Your task to perform on an android device: Open the phone app and click the voicemail tab. Image 0: 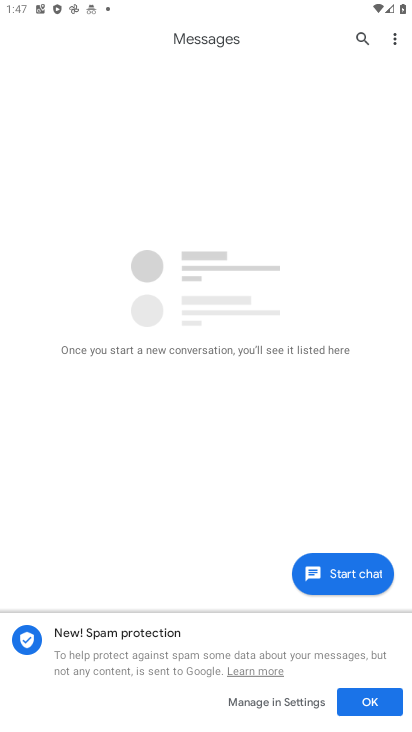
Step 0: press home button
Your task to perform on an android device: Open the phone app and click the voicemail tab. Image 1: 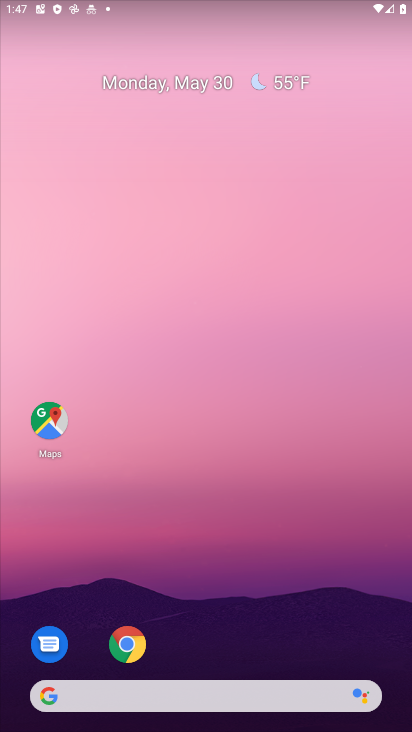
Step 1: drag from (360, 629) to (286, 267)
Your task to perform on an android device: Open the phone app and click the voicemail tab. Image 2: 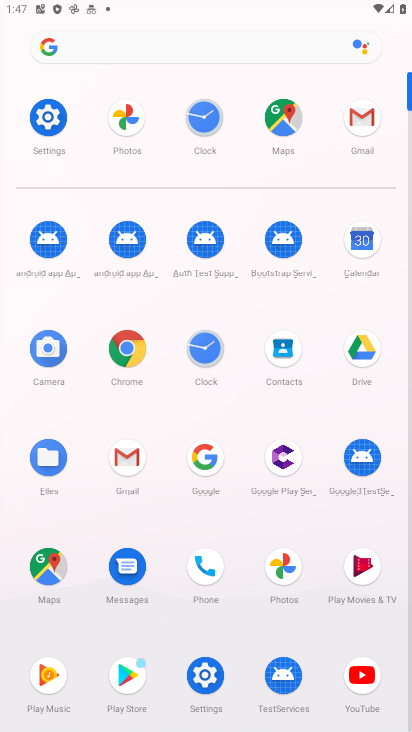
Step 2: click (189, 570)
Your task to perform on an android device: Open the phone app and click the voicemail tab. Image 3: 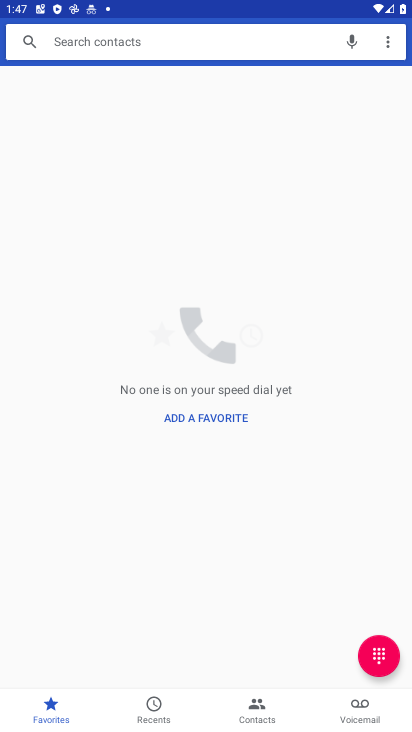
Step 3: click (374, 708)
Your task to perform on an android device: Open the phone app and click the voicemail tab. Image 4: 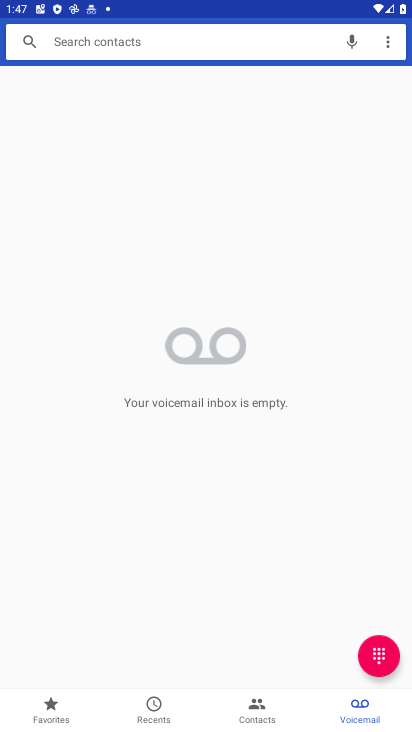
Step 4: task complete